Your task to perform on an android device: Check the news Image 0: 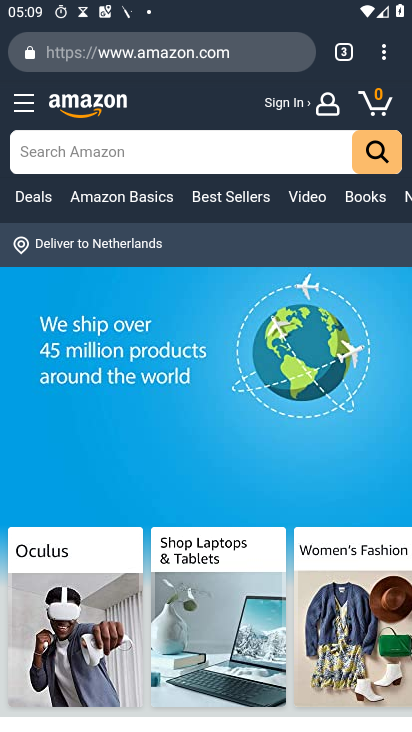
Step 0: click (242, 52)
Your task to perform on an android device: Check the news Image 1: 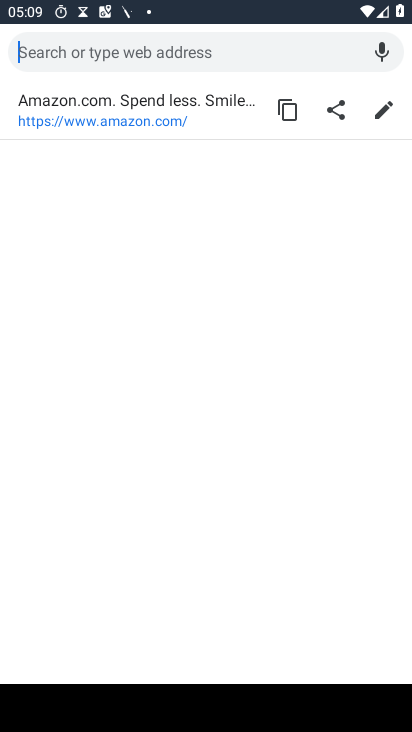
Step 1: type "check the news"
Your task to perform on an android device: Check the news Image 2: 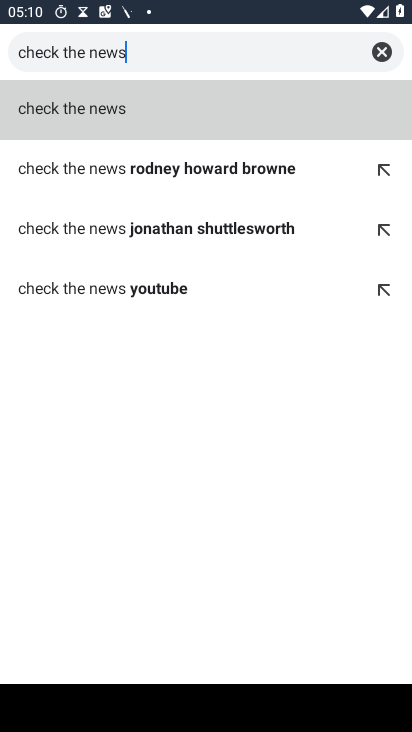
Step 2: click (215, 106)
Your task to perform on an android device: Check the news Image 3: 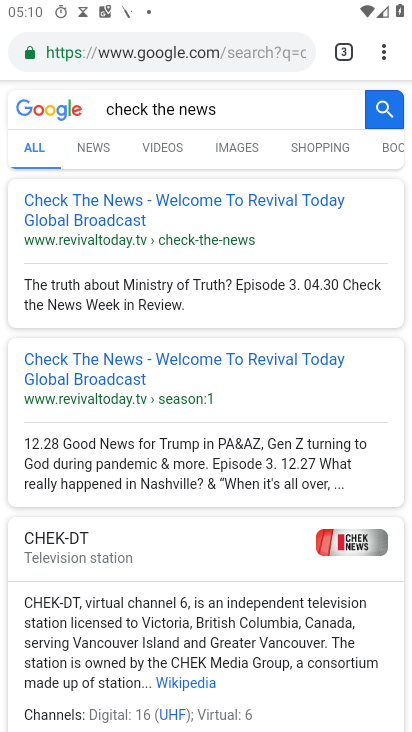
Step 3: task complete